Your task to perform on an android device: turn off improve location accuracy Image 0: 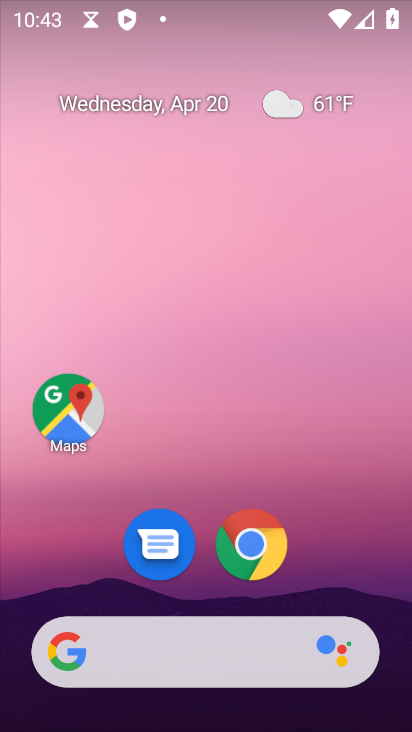
Step 0: drag from (167, 659) to (286, 128)
Your task to perform on an android device: turn off improve location accuracy Image 1: 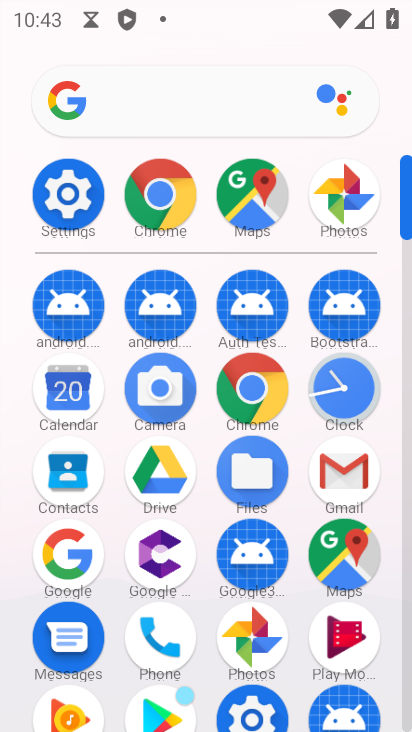
Step 1: drag from (192, 605) to (326, 227)
Your task to perform on an android device: turn off improve location accuracy Image 2: 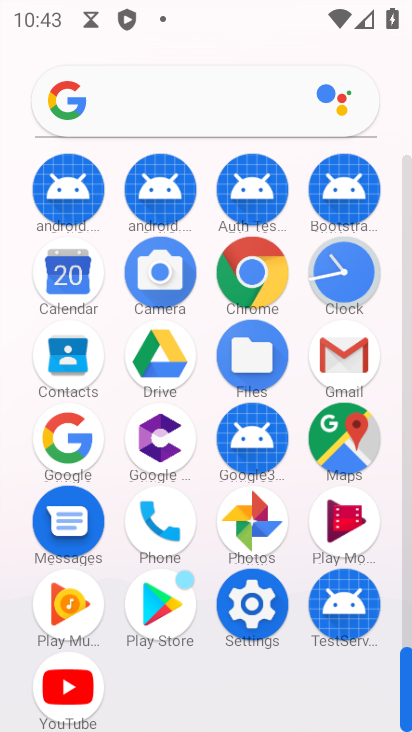
Step 2: click (249, 604)
Your task to perform on an android device: turn off improve location accuracy Image 3: 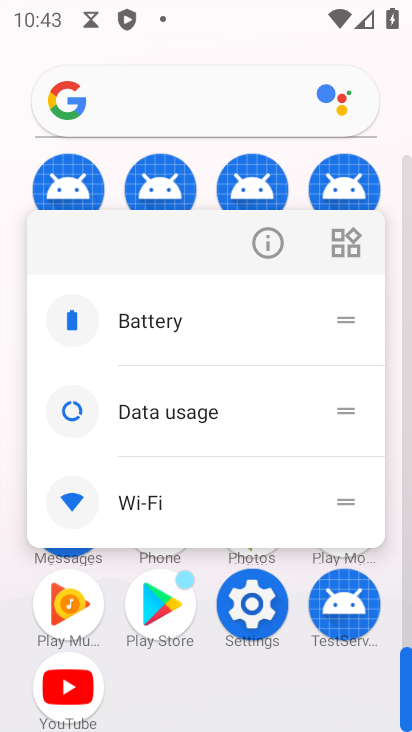
Step 3: click (245, 613)
Your task to perform on an android device: turn off improve location accuracy Image 4: 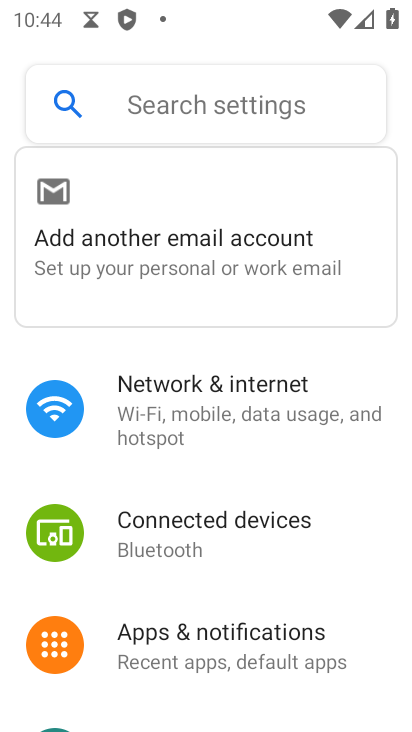
Step 4: drag from (200, 572) to (336, 137)
Your task to perform on an android device: turn off improve location accuracy Image 5: 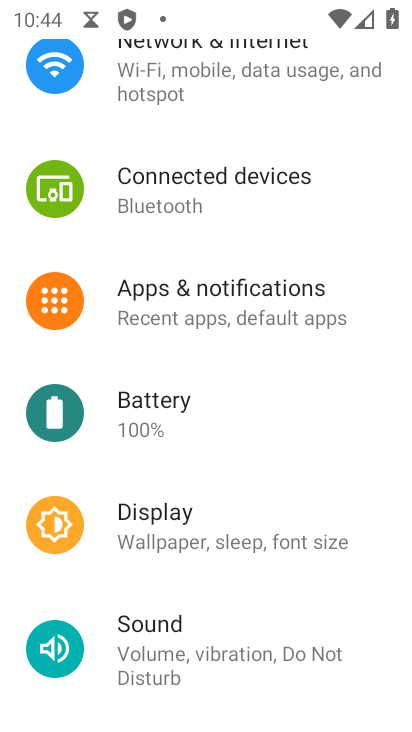
Step 5: drag from (218, 492) to (327, 82)
Your task to perform on an android device: turn off improve location accuracy Image 6: 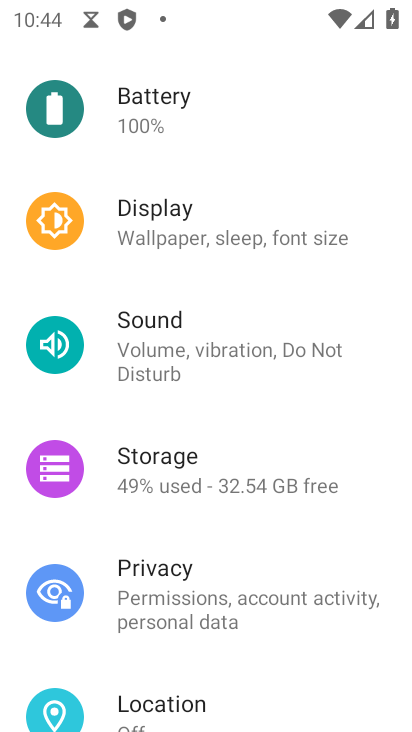
Step 6: drag from (229, 500) to (296, 139)
Your task to perform on an android device: turn off improve location accuracy Image 7: 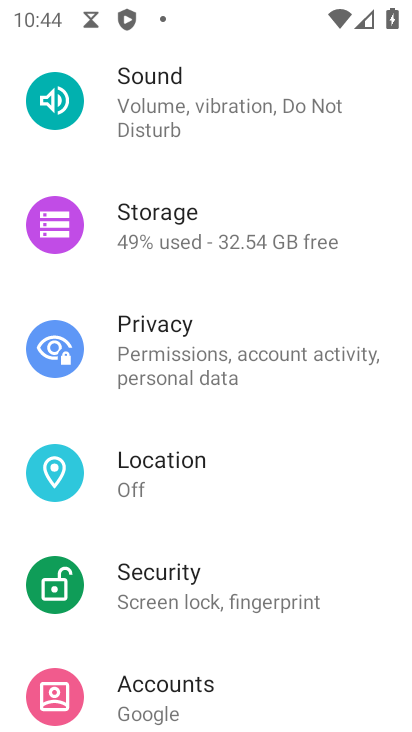
Step 7: click (176, 467)
Your task to perform on an android device: turn off improve location accuracy Image 8: 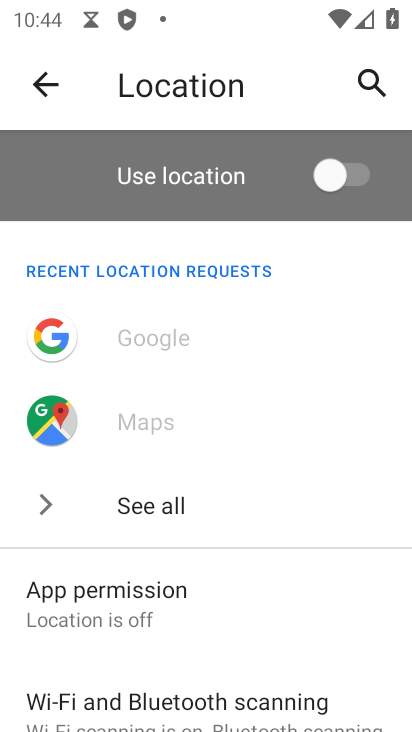
Step 8: drag from (113, 654) to (304, 117)
Your task to perform on an android device: turn off improve location accuracy Image 9: 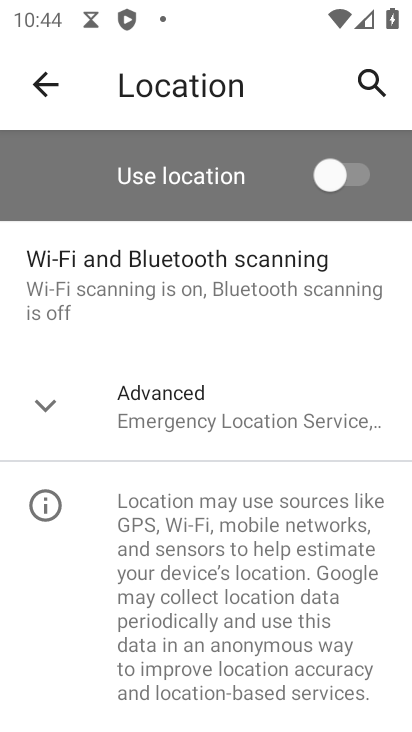
Step 9: click (139, 415)
Your task to perform on an android device: turn off improve location accuracy Image 10: 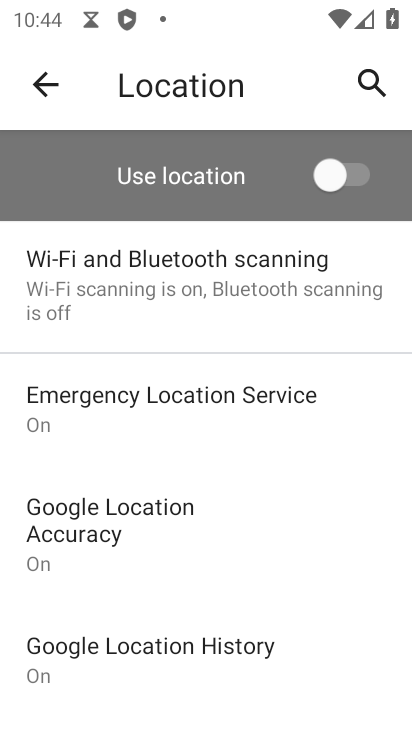
Step 10: click (94, 517)
Your task to perform on an android device: turn off improve location accuracy Image 11: 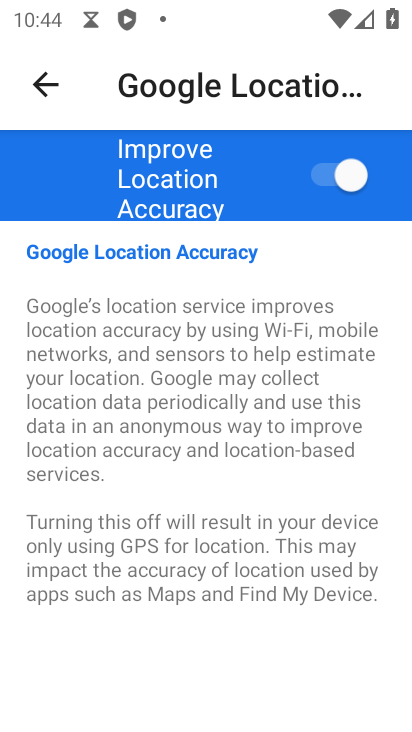
Step 11: click (329, 167)
Your task to perform on an android device: turn off improve location accuracy Image 12: 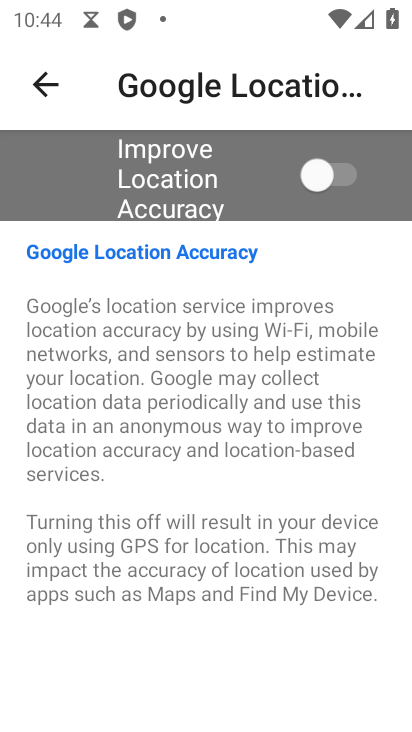
Step 12: task complete